Your task to perform on an android device: set an alarm Image 0: 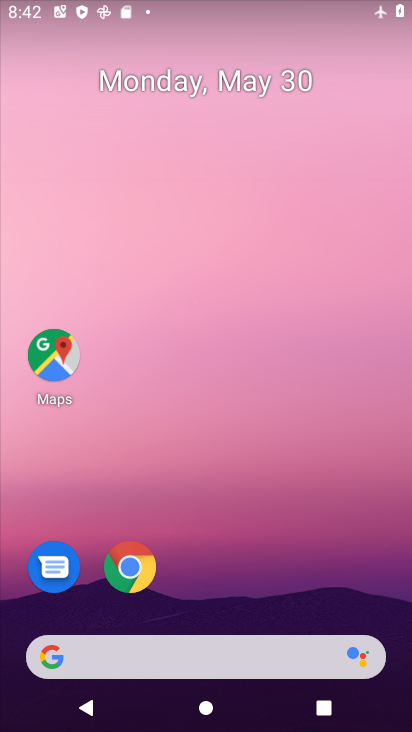
Step 0: drag from (269, 578) to (226, 119)
Your task to perform on an android device: set an alarm Image 1: 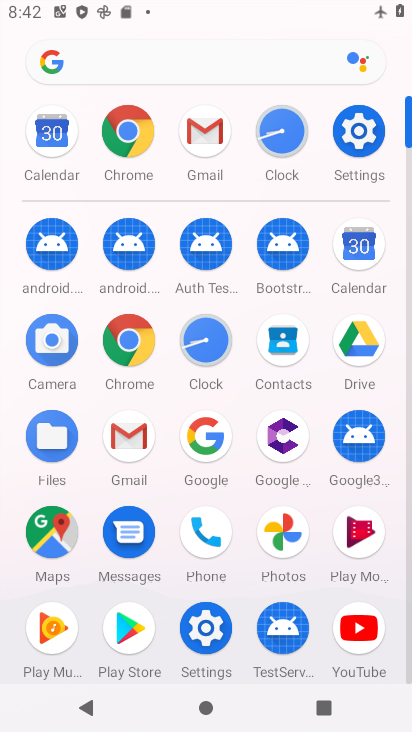
Step 1: click (202, 331)
Your task to perform on an android device: set an alarm Image 2: 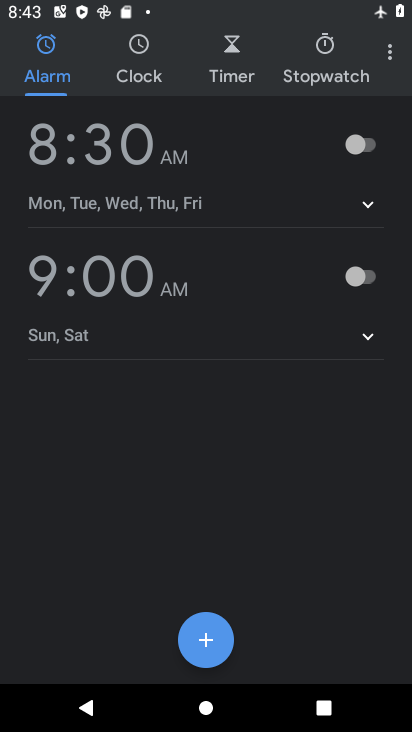
Step 2: task complete